Your task to perform on an android device: turn off wifi Image 0: 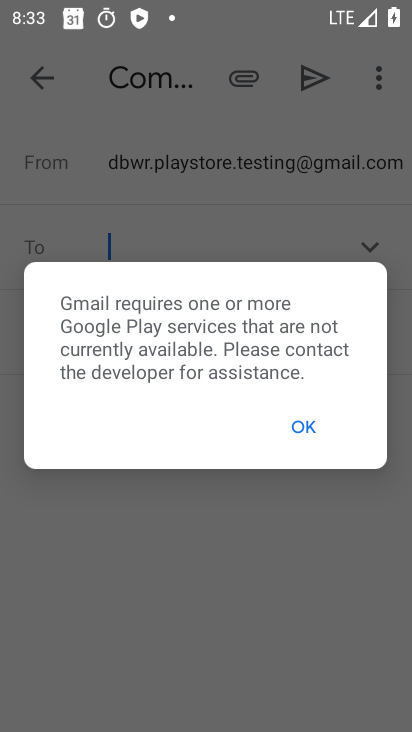
Step 0: press home button
Your task to perform on an android device: turn off wifi Image 1: 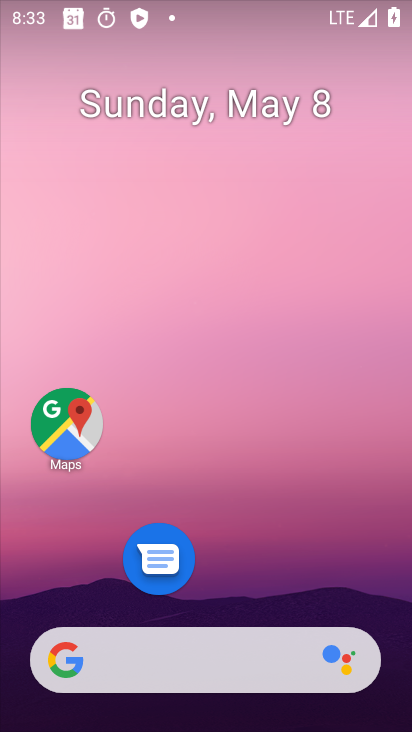
Step 1: drag from (361, 655) to (328, 73)
Your task to perform on an android device: turn off wifi Image 2: 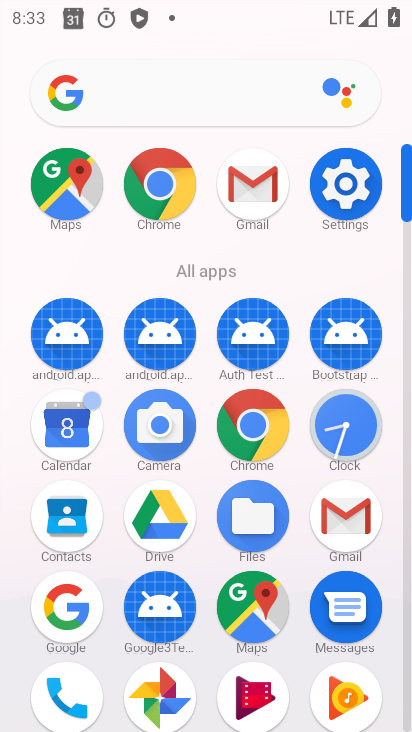
Step 2: drag from (292, 622) to (320, 203)
Your task to perform on an android device: turn off wifi Image 3: 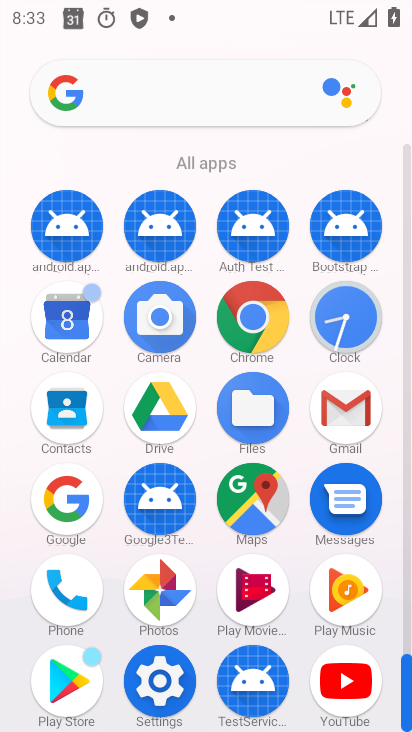
Step 3: click (171, 671)
Your task to perform on an android device: turn off wifi Image 4: 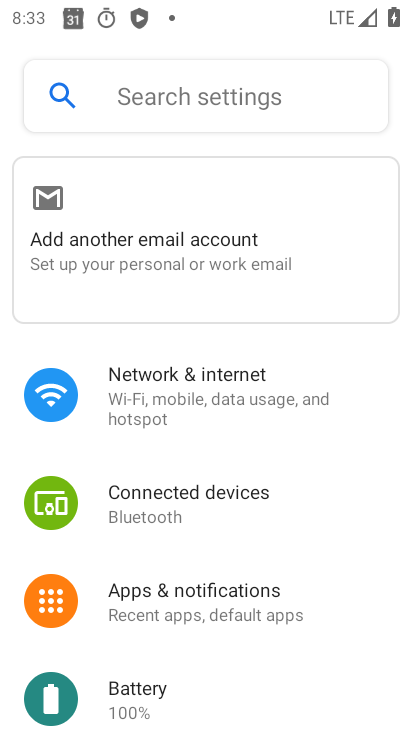
Step 4: click (295, 422)
Your task to perform on an android device: turn off wifi Image 5: 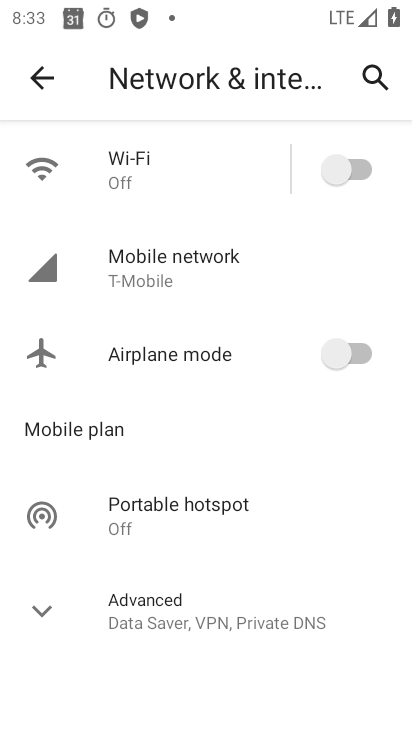
Step 5: task complete